Your task to perform on an android device: open app "Yahoo Mail" Image 0: 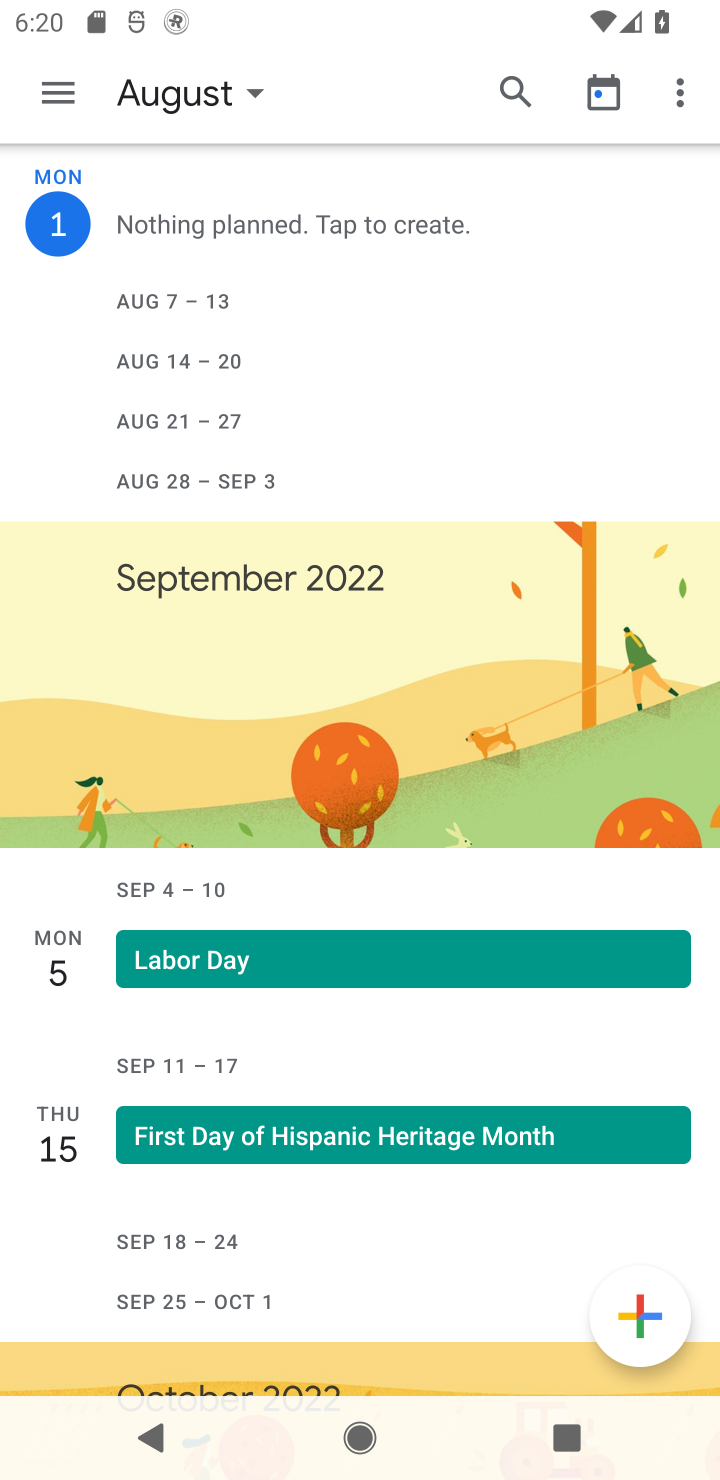
Step 0: press home button
Your task to perform on an android device: open app "Yahoo Mail" Image 1: 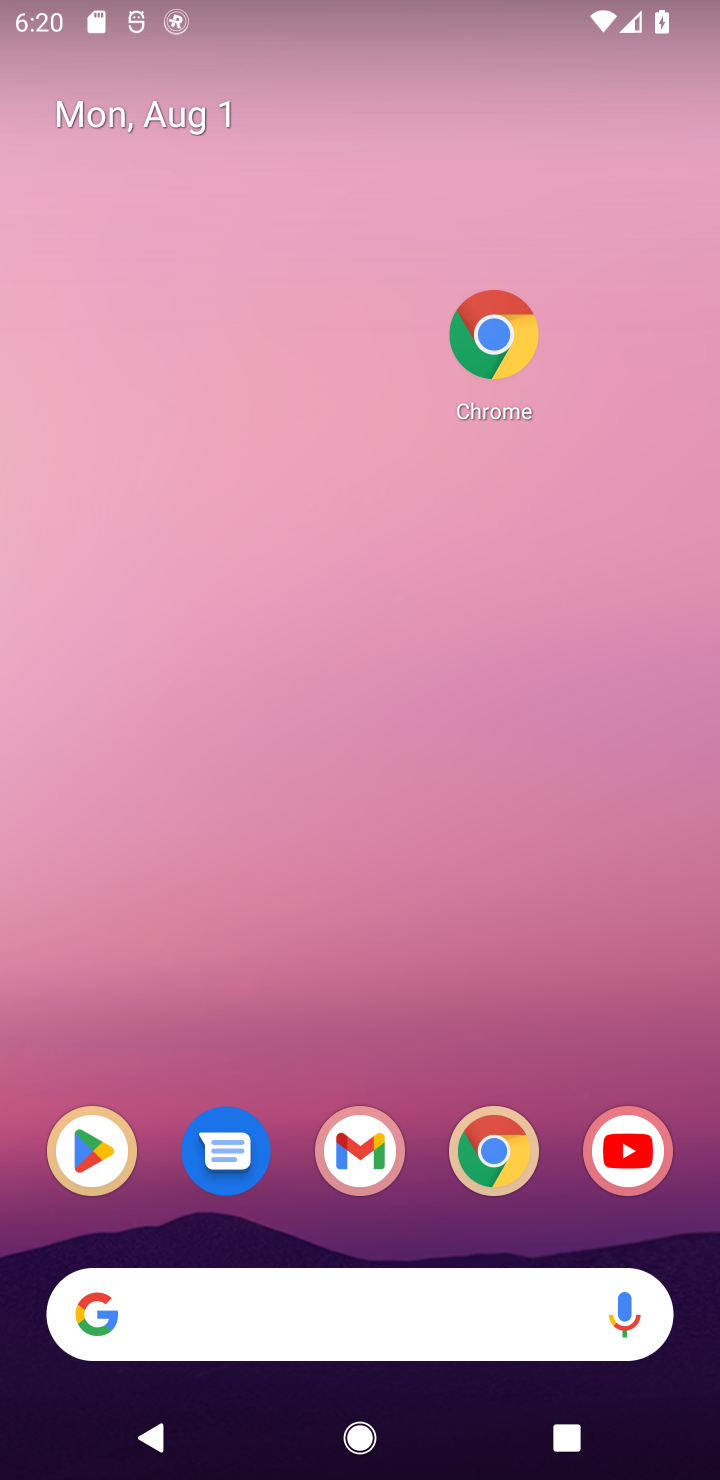
Step 1: click (90, 1171)
Your task to perform on an android device: open app "Yahoo Mail" Image 2: 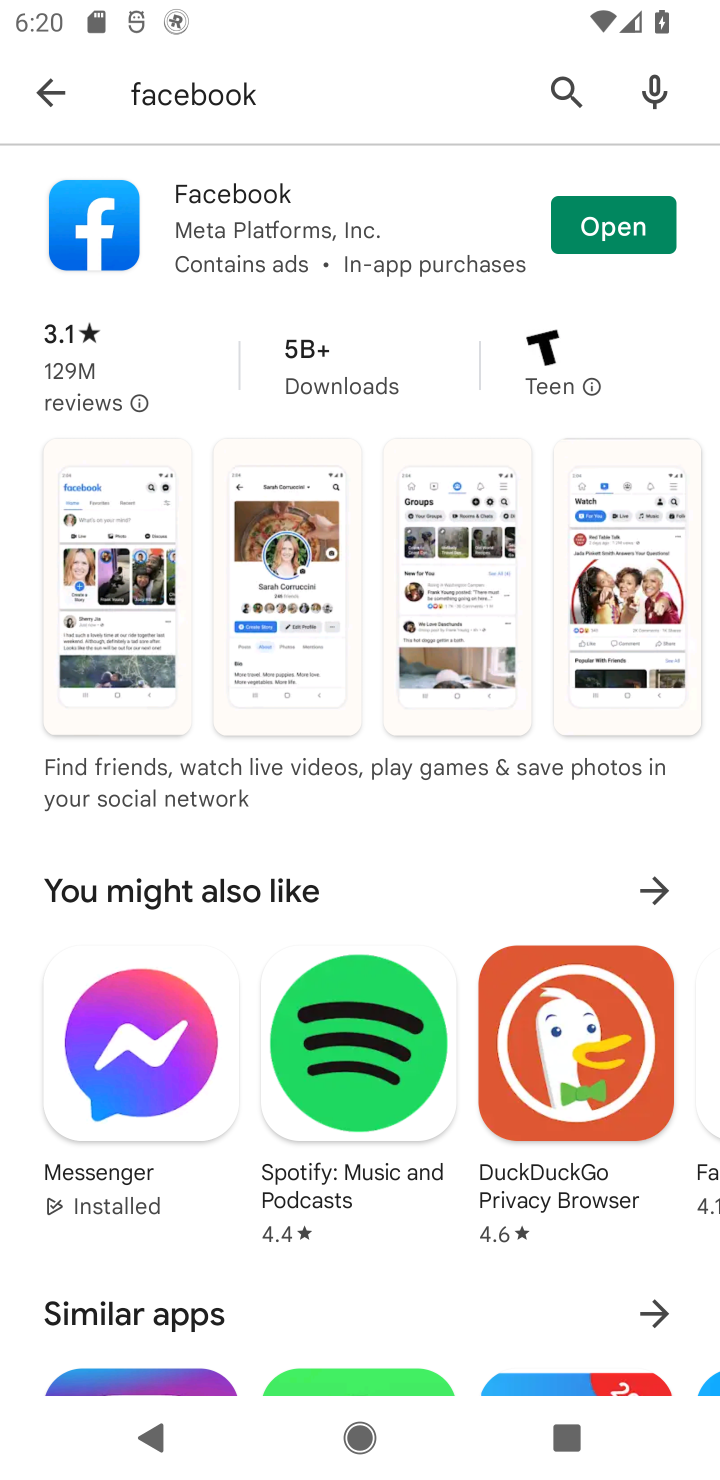
Step 2: click (558, 90)
Your task to perform on an android device: open app "Yahoo Mail" Image 3: 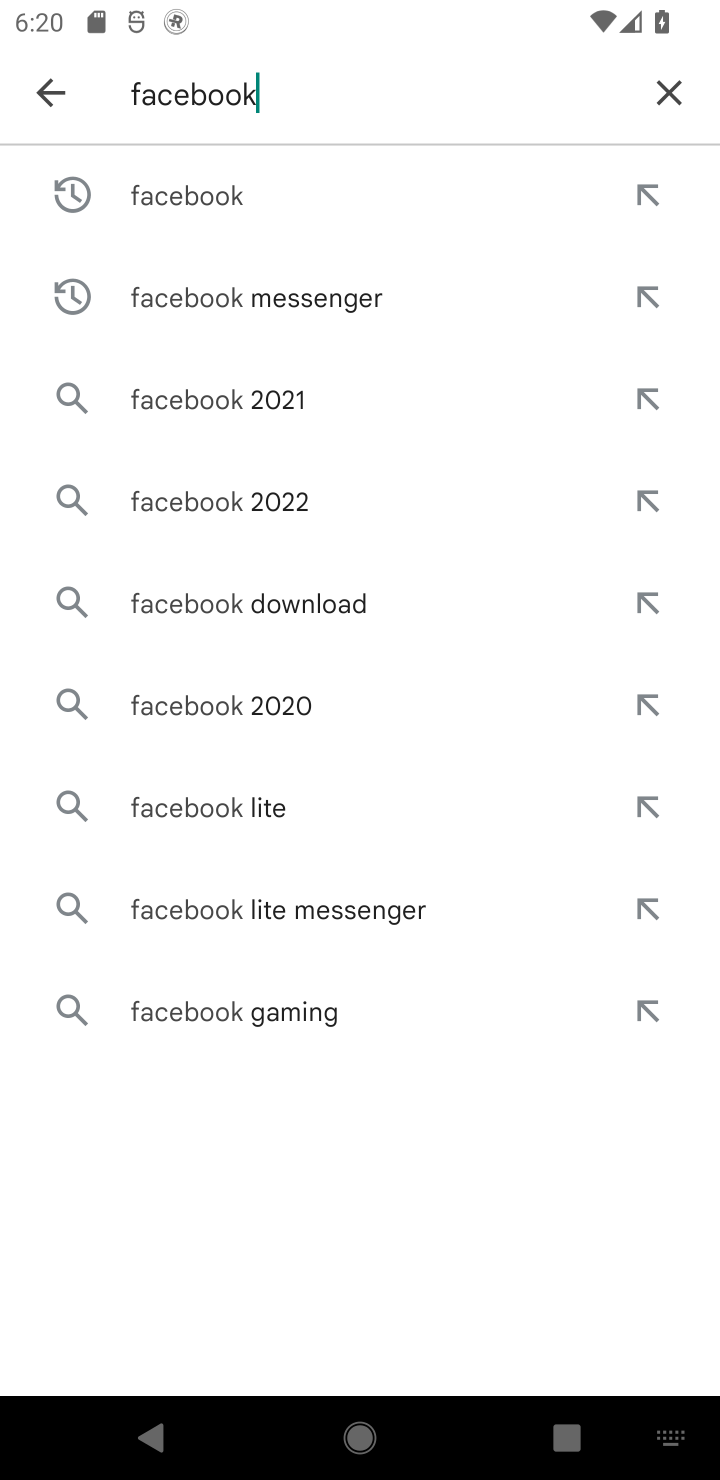
Step 3: click (670, 99)
Your task to perform on an android device: open app "Yahoo Mail" Image 4: 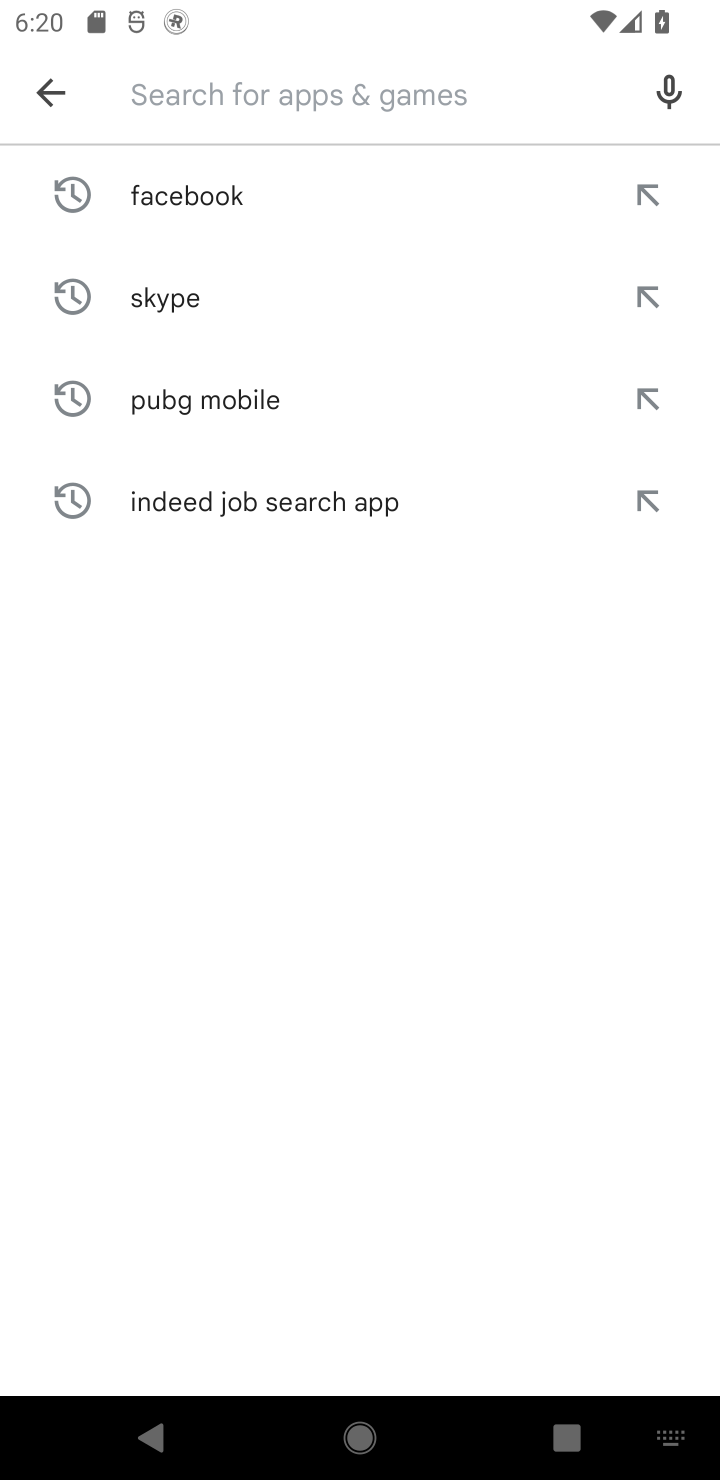
Step 4: type "Yahoo Mail"
Your task to perform on an android device: open app "Yahoo Mail" Image 5: 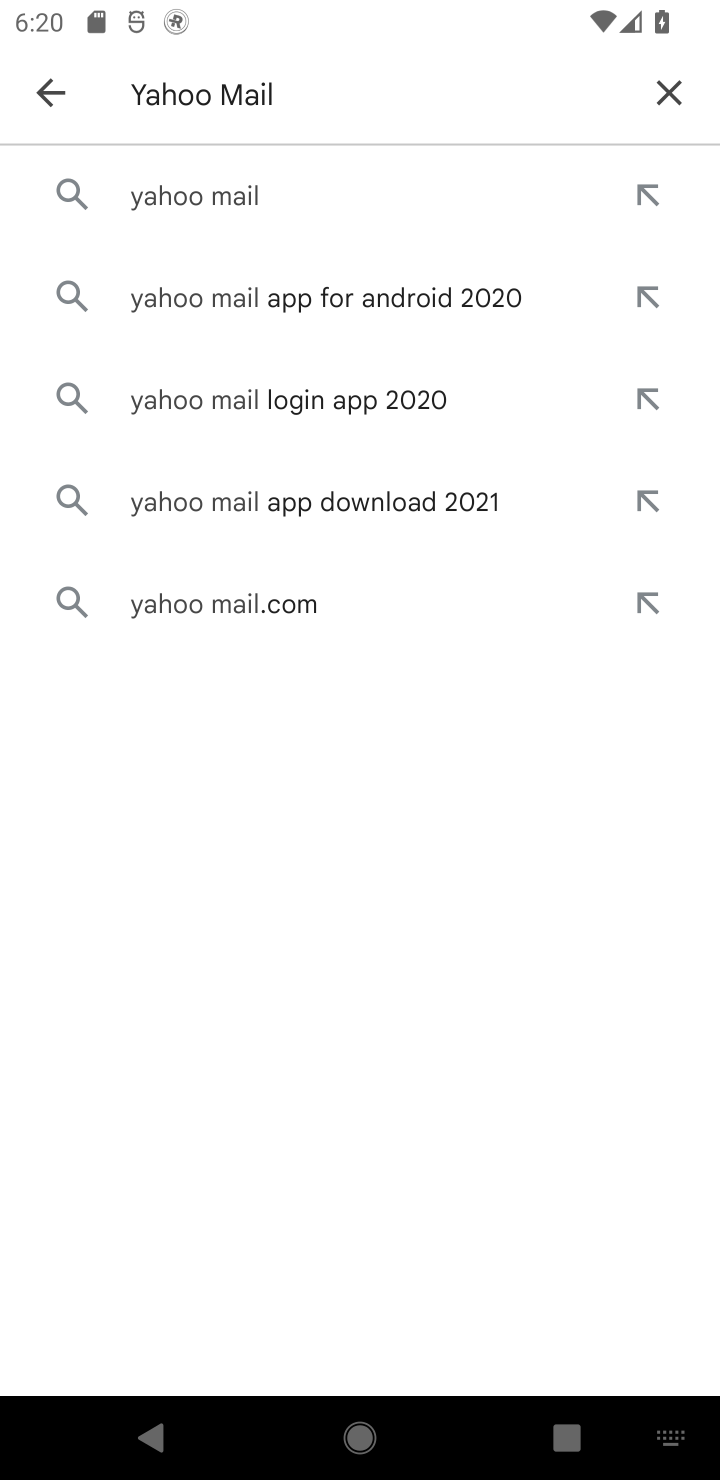
Step 5: click (252, 198)
Your task to perform on an android device: open app "Yahoo Mail" Image 6: 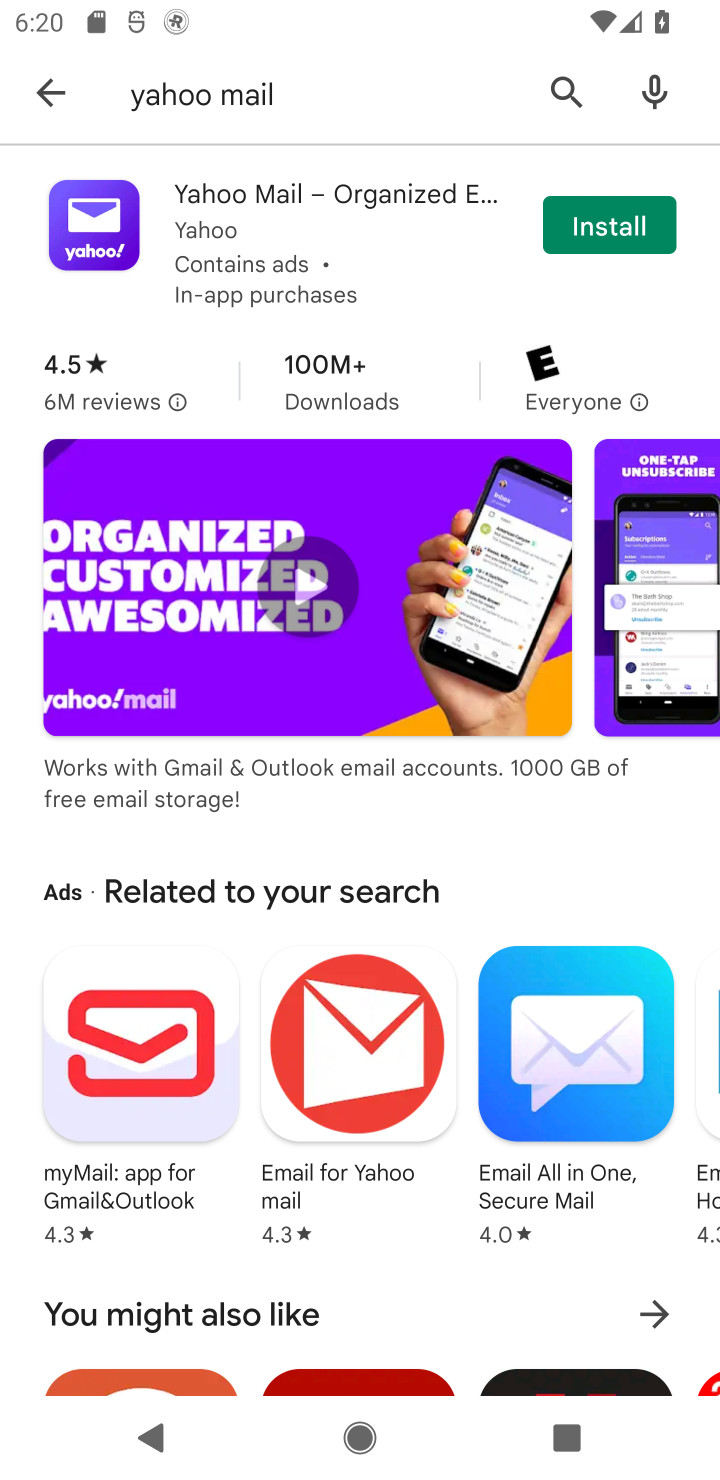
Step 6: task complete